Your task to perform on an android device: Show me productivity apps on the Play Store Image 0: 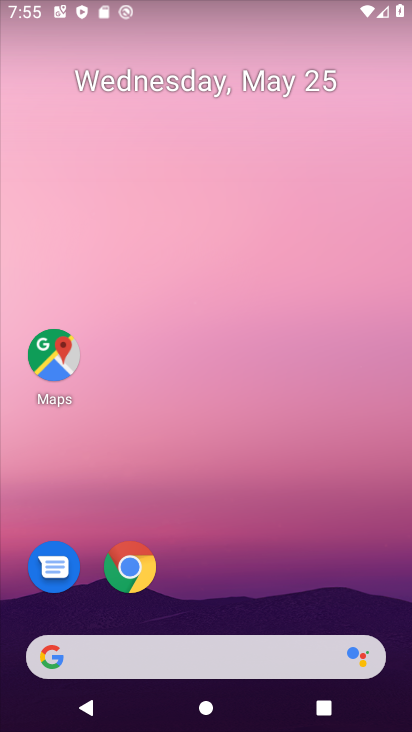
Step 0: drag from (327, 592) to (193, 37)
Your task to perform on an android device: Show me productivity apps on the Play Store Image 1: 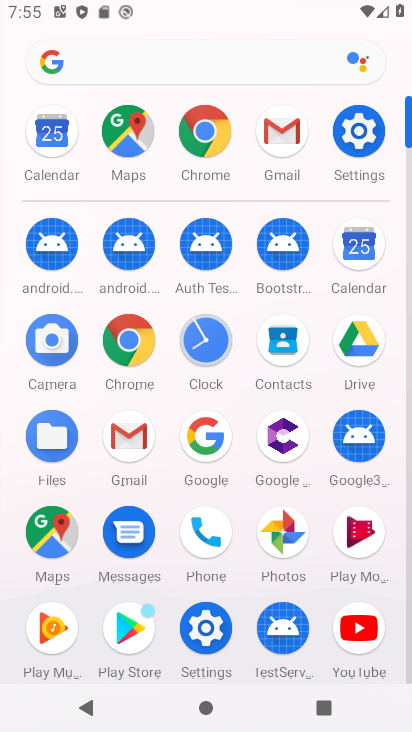
Step 1: click (136, 617)
Your task to perform on an android device: Show me productivity apps on the Play Store Image 2: 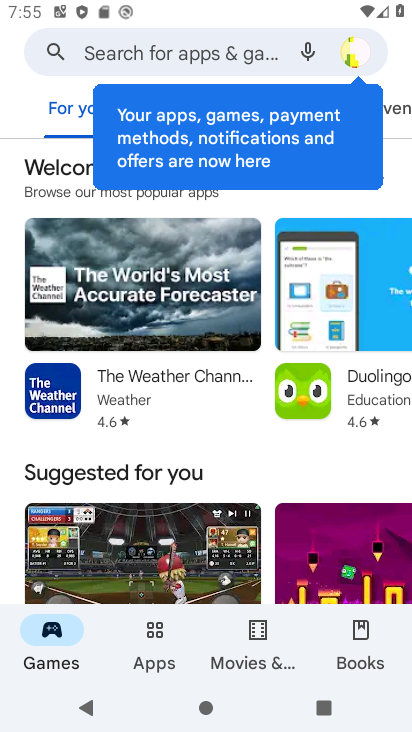
Step 2: click (157, 672)
Your task to perform on an android device: Show me productivity apps on the Play Store Image 3: 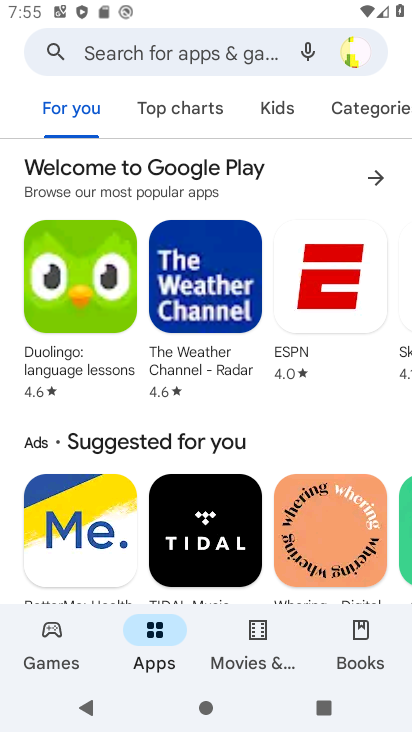
Step 3: click (193, 121)
Your task to perform on an android device: Show me productivity apps on the Play Store Image 4: 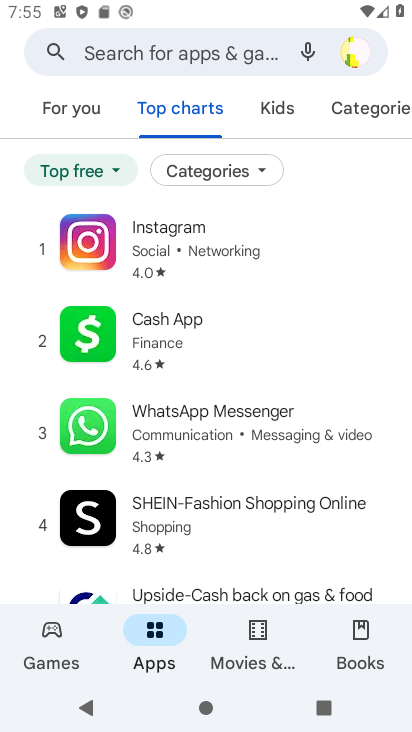
Step 4: click (228, 173)
Your task to perform on an android device: Show me productivity apps on the Play Store Image 5: 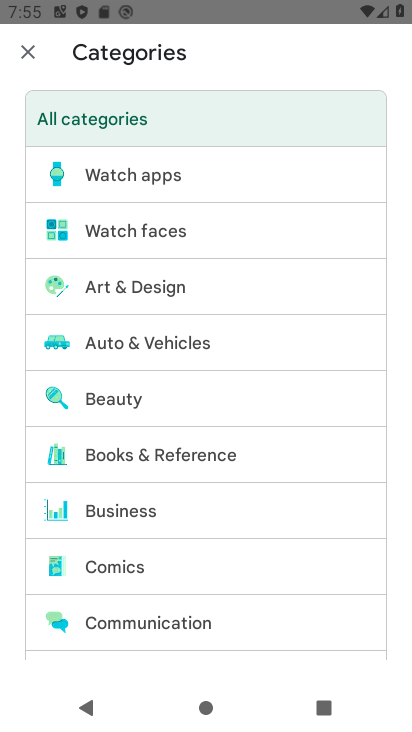
Step 5: drag from (185, 552) to (182, 202)
Your task to perform on an android device: Show me productivity apps on the Play Store Image 6: 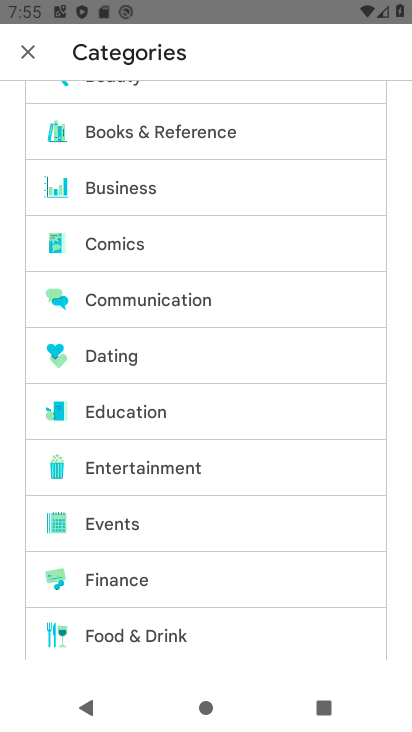
Step 6: drag from (237, 554) to (232, 350)
Your task to perform on an android device: Show me productivity apps on the Play Store Image 7: 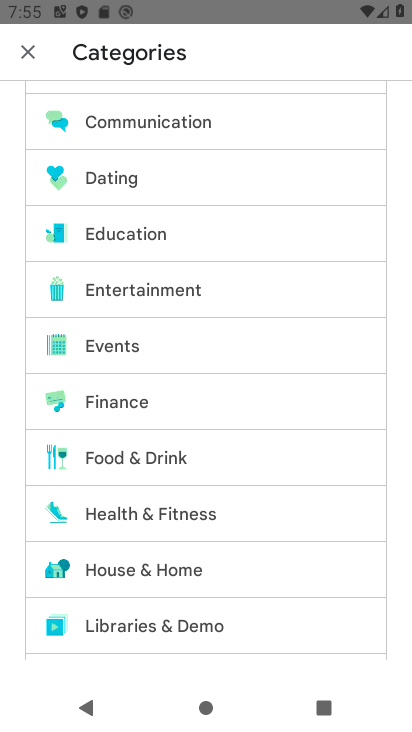
Step 7: drag from (224, 624) to (218, 236)
Your task to perform on an android device: Show me productivity apps on the Play Store Image 8: 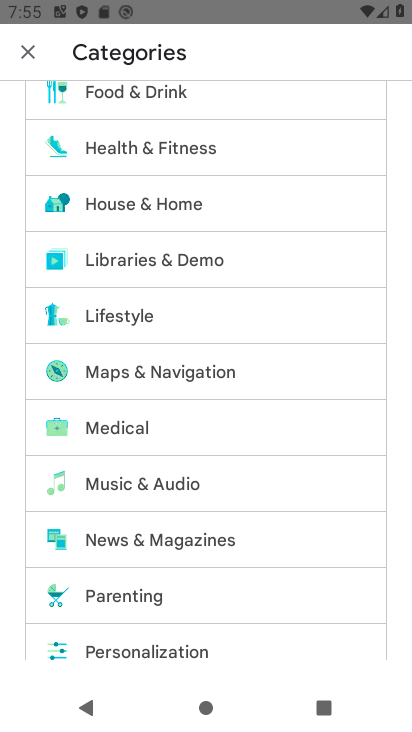
Step 8: drag from (189, 604) to (192, 378)
Your task to perform on an android device: Show me productivity apps on the Play Store Image 9: 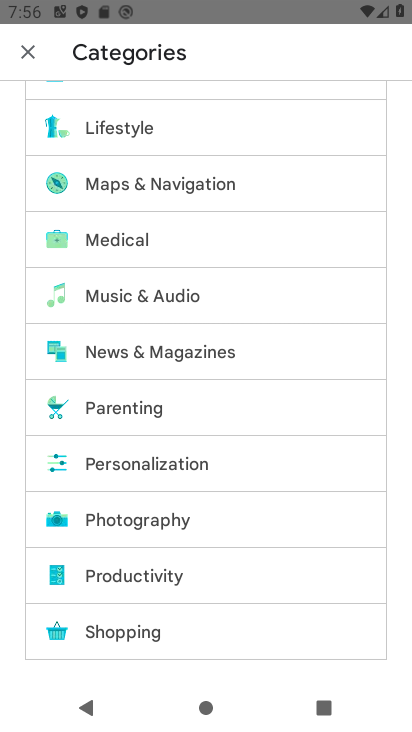
Step 9: click (239, 591)
Your task to perform on an android device: Show me productivity apps on the Play Store Image 10: 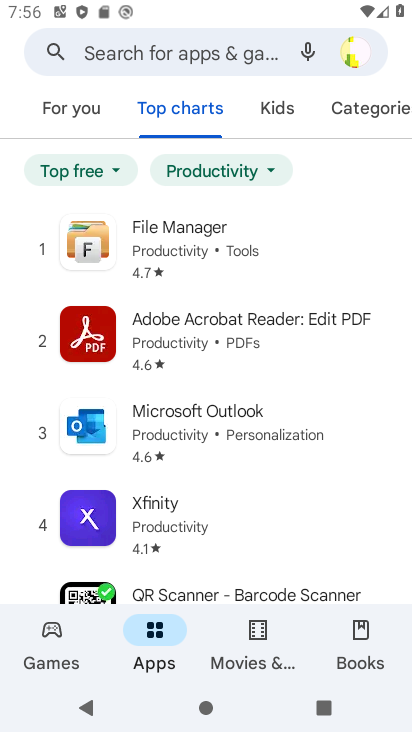
Step 10: task complete